Your task to perform on an android device: Check the weather Image 0: 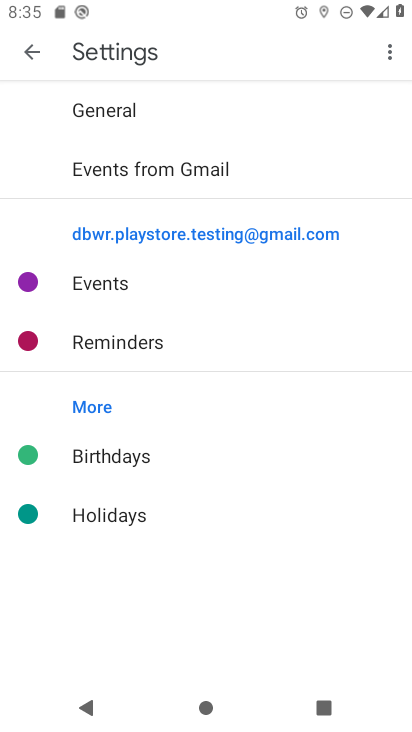
Step 0: press home button
Your task to perform on an android device: Check the weather Image 1: 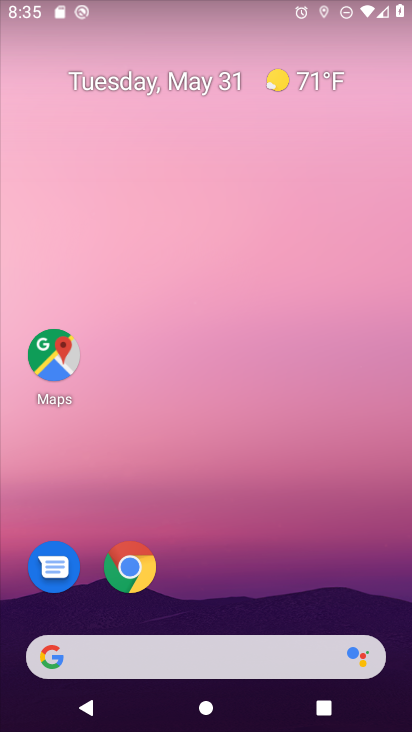
Step 1: drag from (164, 629) to (150, 305)
Your task to perform on an android device: Check the weather Image 2: 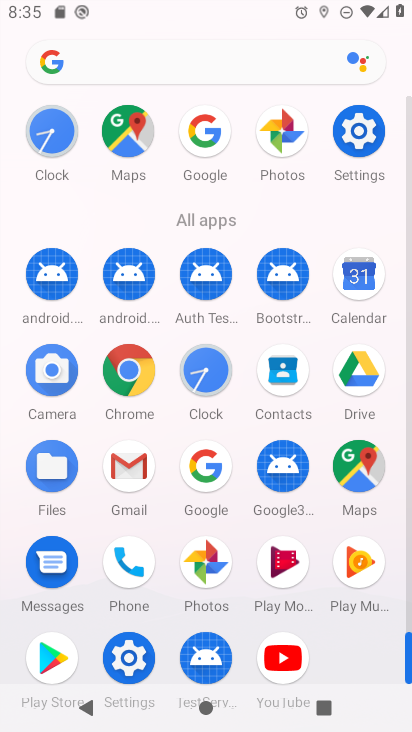
Step 2: click (197, 141)
Your task to perform on an android device: Check the weather Image 3: 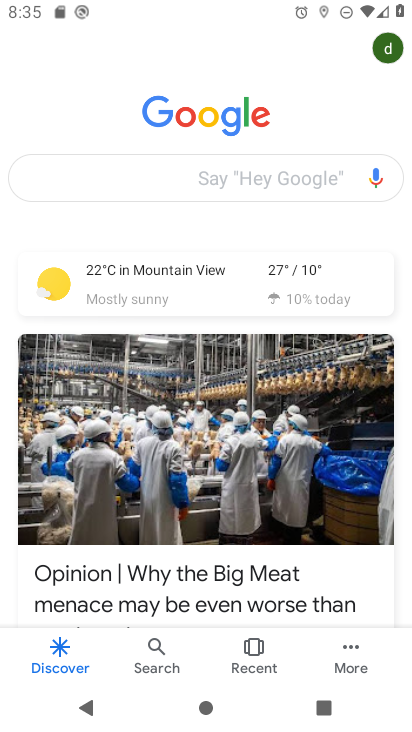
Step 3: click (120, 168)
Your task to perform on an android device: Check the weather Image 4: 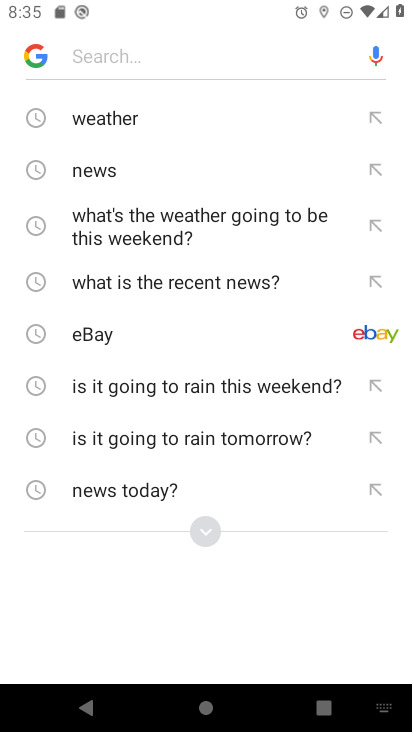
Step 4: click (101, 122)
Your task to perform on an android device: Check the weather Image 5: 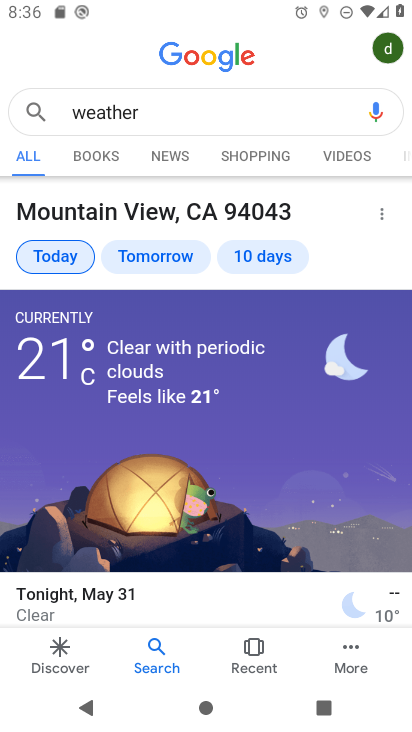
Step 5: task complete